Your task to perform on an android device: Go to Google maps Image 0: 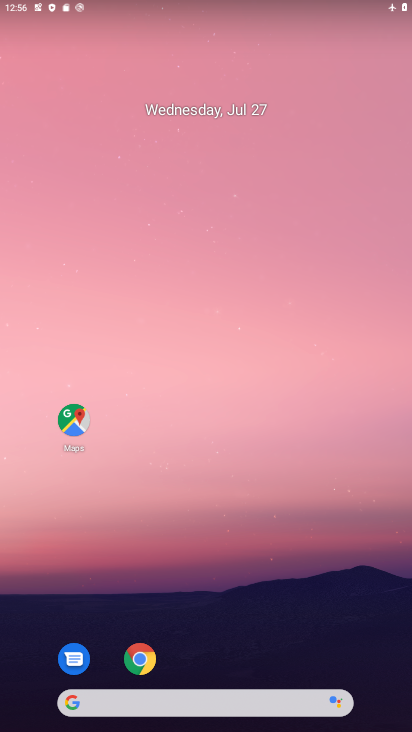
Step 0: click (237, 475)
Your task to perform on an android device: Go to Google maps Image 1: 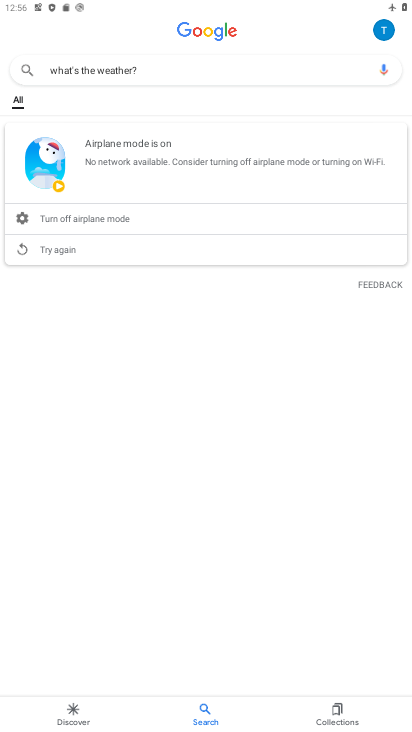
Step 1: press home button
Your task to perform on an android device: Go to Google maps Image 2: 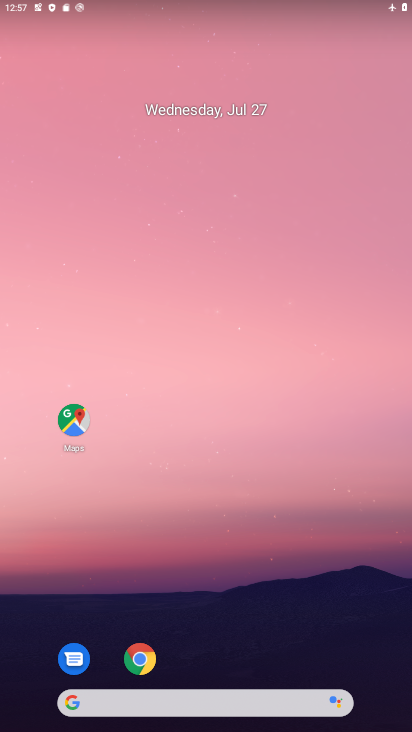
Step 2: click (79, 429)
Your task to perform on an android device: Go to Google maps Image 3: 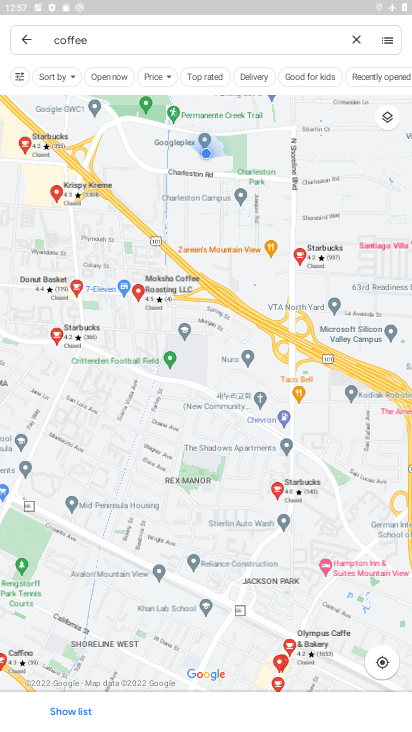
Step 3: task complete